Your task to perform on an android device: toggle improve location accuracy Image 0: 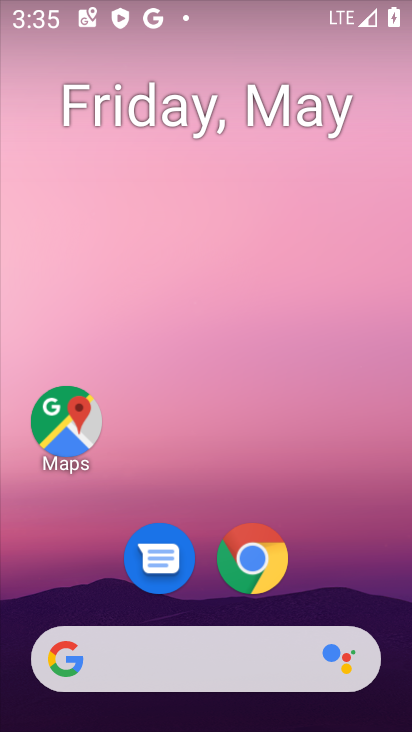
Step 0: press home button
Your task to perform on an android device: toggle improve location accuracy Image 1: 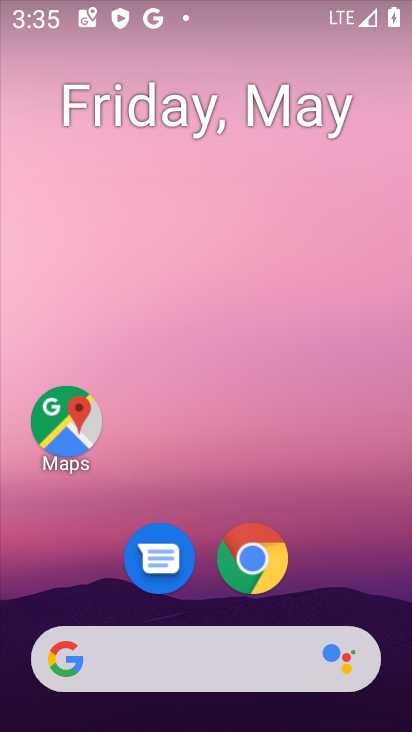
Step 1: drag from (169, 636) to (285, 117)
Your task to perform on an android device: toggle improve location accuracy Image 2: 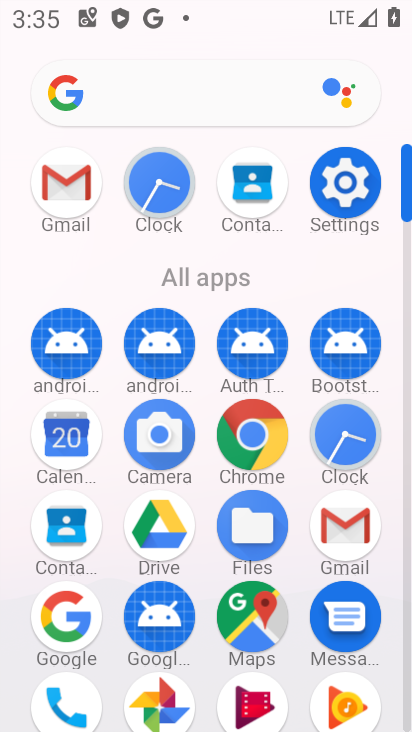
Step 2: click (360, 181)
Your task to perform on an android device: toggle improve location accuracy Image 3: 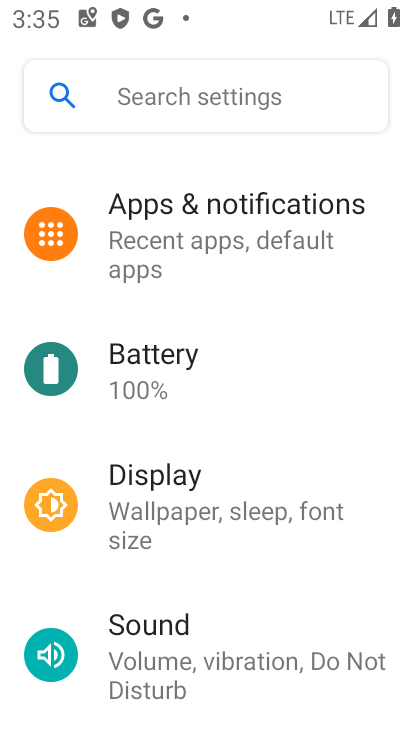
Step 3: drag from (241, 617) to (352, 144)
Your task to perform on an android device: toggle improve location accuracy Image 4: 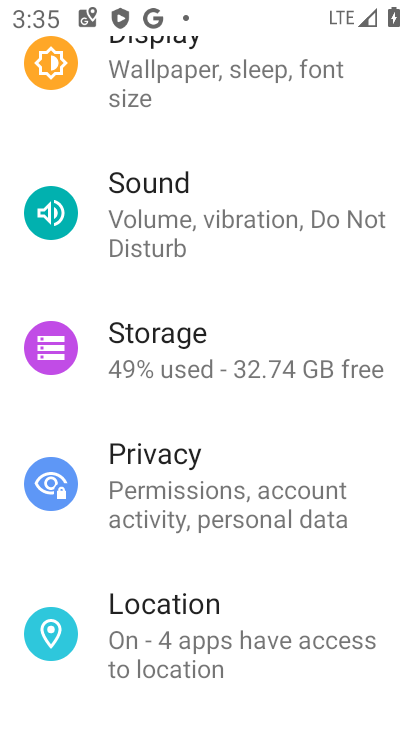
Step 4: click (222, 627)
Your task to perform on an android device: toggle improve location accuracy Image 5: 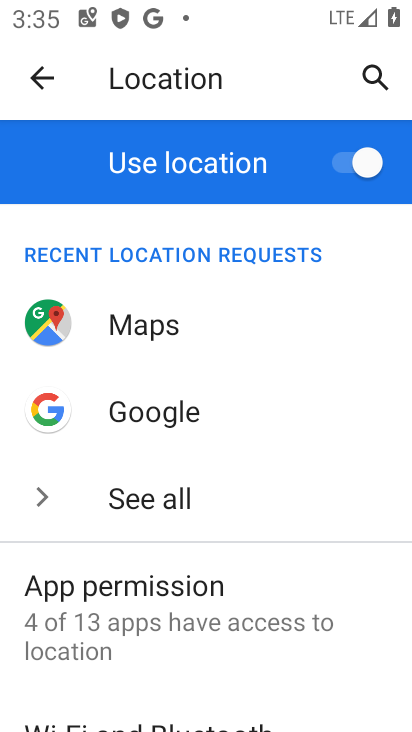
Step 5: drag from (238, 669) to (336, 245)
Your task to perform on an android device: toggle improve location accuracy Image 6: 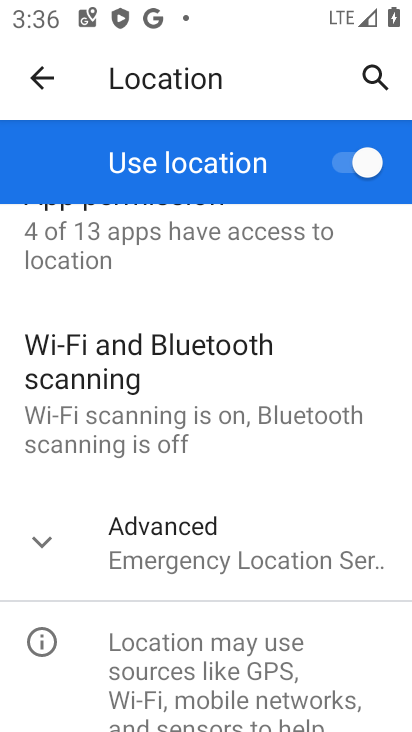
Step 6: click (174, 549)
Your task to perform on an android device: toggle improve location accuracy Image 7: 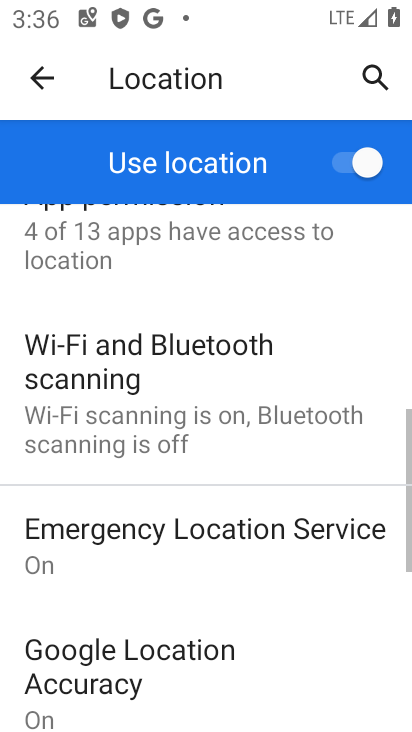
Step 7: drag from (222, 609) to (299, 332)
Your task to perform on an android device: toggle improve location accuracy Image 8: 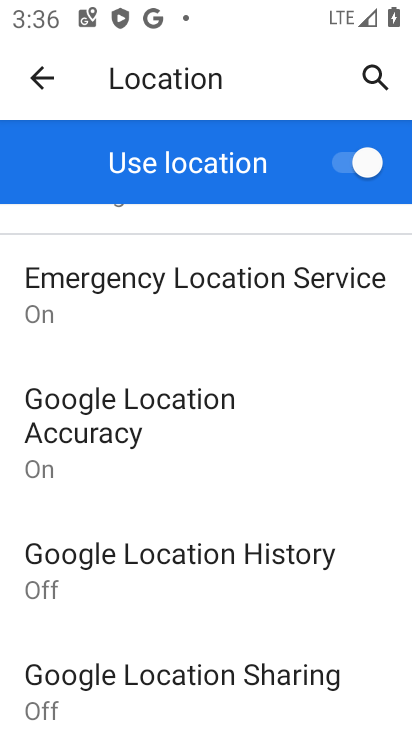
Step 8: click (142, 418)
Your task to perform on an android device: toggle improve location accuracy Image 9: 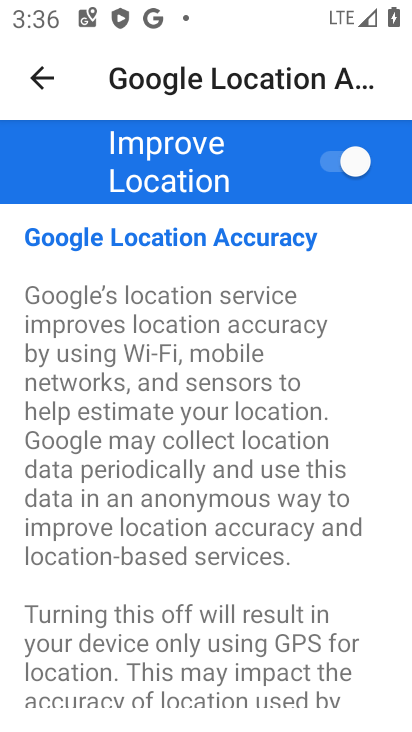
Step 9: click (329, 163)
Your task to perform on an android device: toggle improve location accuracy Image 10: 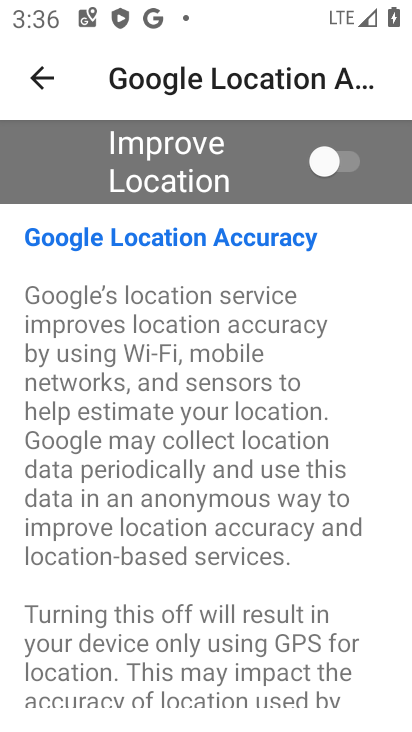
Step 10: task complete